Your task to perform on an android device: Go to Yahoo.com Image 0: 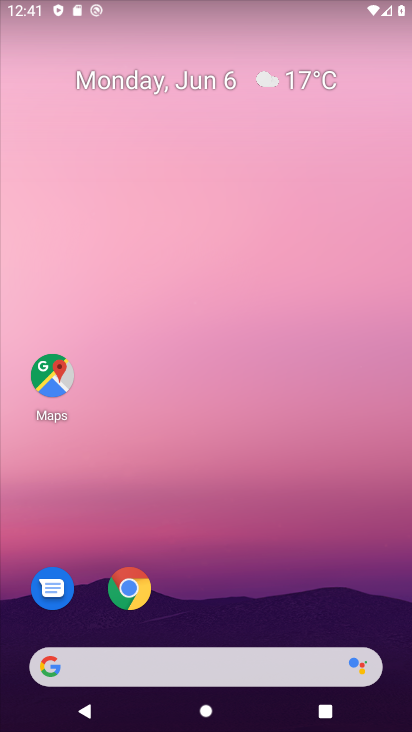
Step 0: click (127, 588)
Your task to perform on an android device: Go to Yahoo.com Image 1: 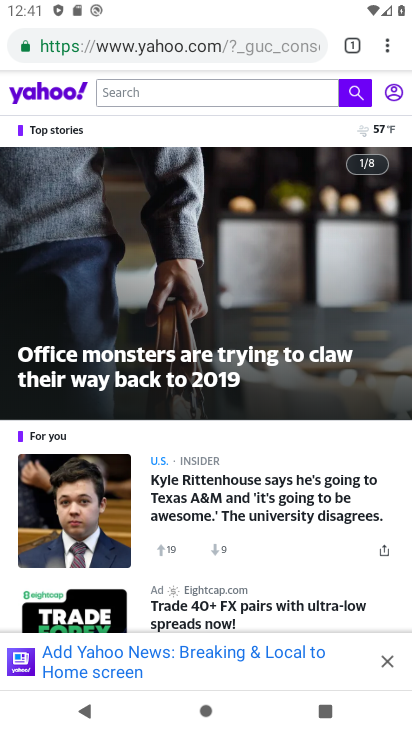
Step 1: task complete